Your task to perform on an android device: Search for vegetarian restaurants on Maps Image 0: 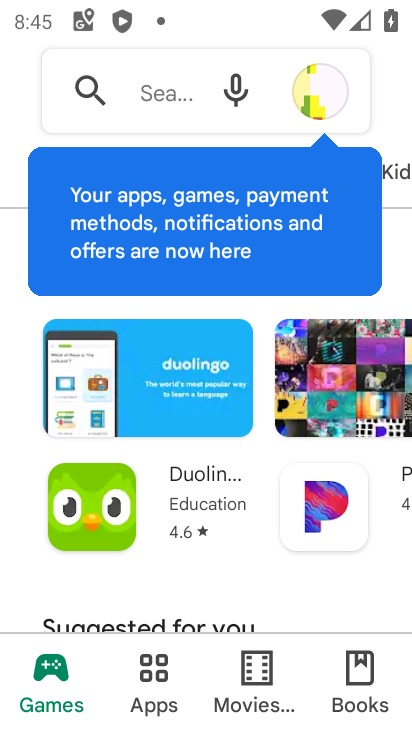
Step 0: press home button
Your task to perform on an android device: Search for vegetarian restaurants on Maps Image 1: 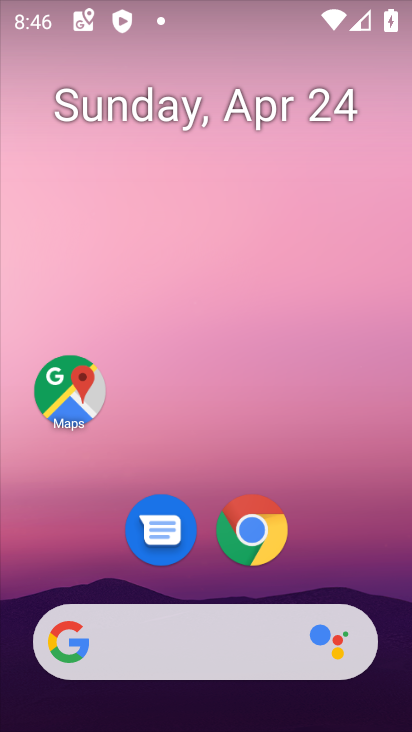
Step 1: click (81, 376)
Your task to perform on an android device: Search for vegetarian restaurants on Maps Image 2: 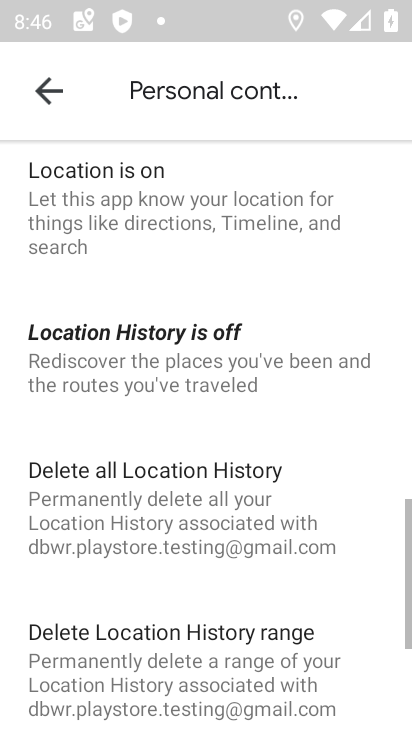
Step 2: click (72, 77)
Your task to perform on an android device: Search for vegetarian restaurants on Maps Image 3: 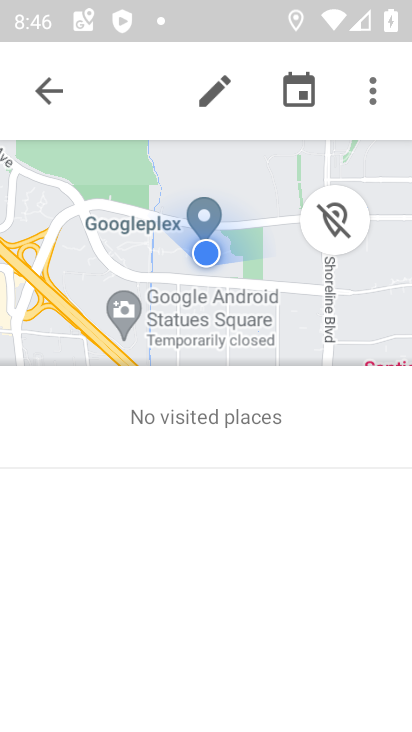
Step 3: click (72, 77)
Your task to perform on an android device: Search for vegetarian restaurants on Maps Image 4: 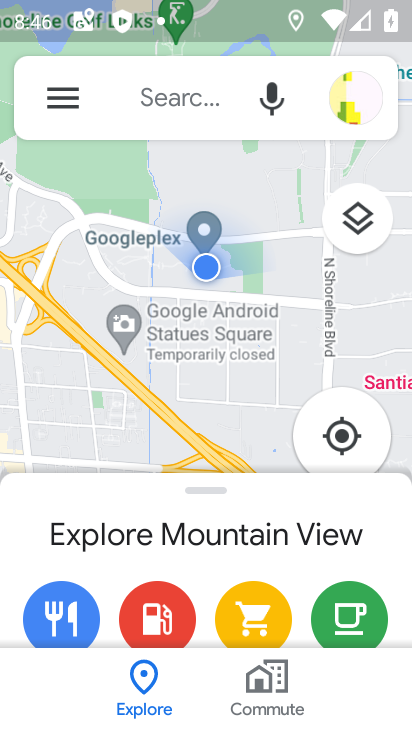
Step 4: click (110, 94)
Your task to perform on an android device: Search for vegetarian restaurants on Maps Image 5: 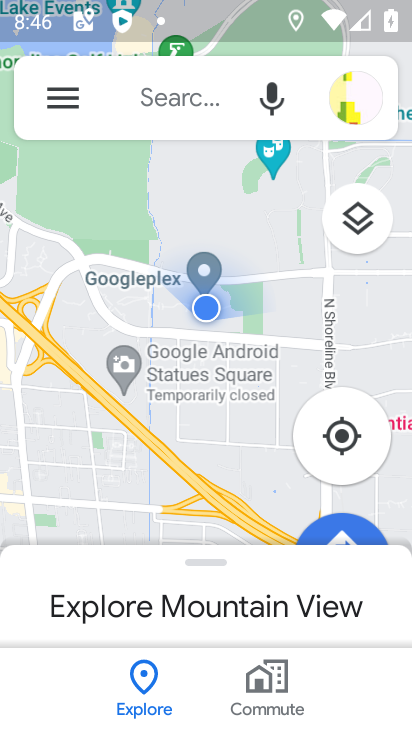
Step 5: click (148, 101)
Your task to perform on an android device: Search for vegetarian restaurants on Maps Image 6: 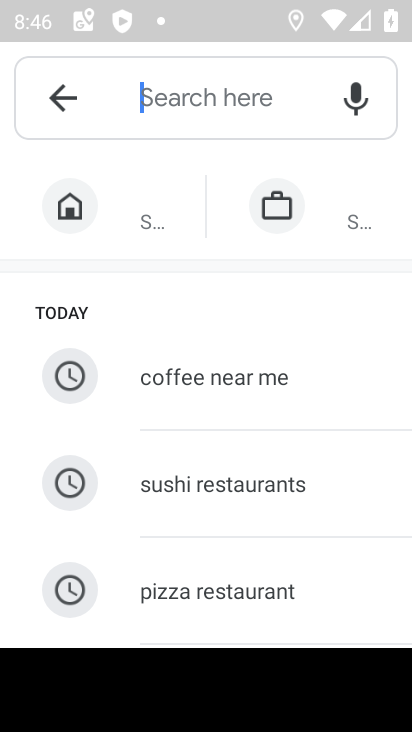
Step 6: drag from (162, 572) to (299, 108)
Your task to perform on an android device: Search for vegetarian restaurants on Maps Image 7: 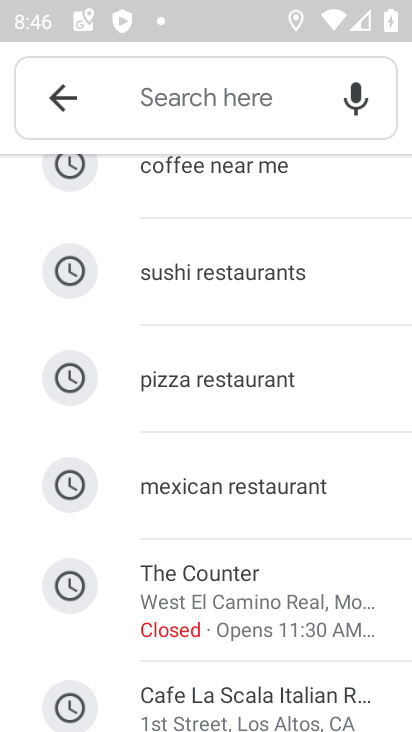
Step 7: type "vegetarian restaurant"
Your task to perform on an android device: Search for vegetarian restaurants on Maps Image 8: 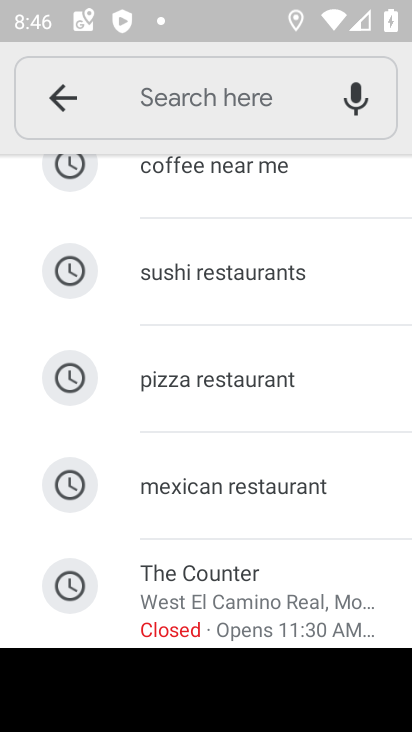
Step 8: click (194, 73)
Your task to perform on an android device: Search for vegetarian restaurants on Maps Image 9: 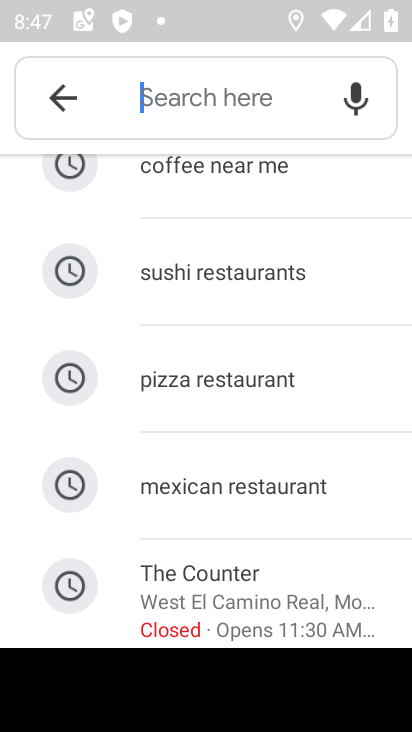
Step 9: type "vegetarian restaurant"
Your task to perform on an android device: Search for vegetarian restaurants on Maps Image 10: 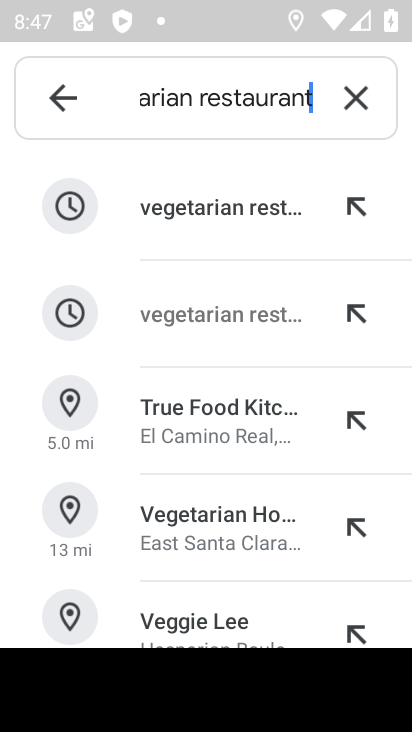
Step 10: click (226, 213)
Your task to perform on an android device: Search for vegetarian restaurants on Maps Image 11: 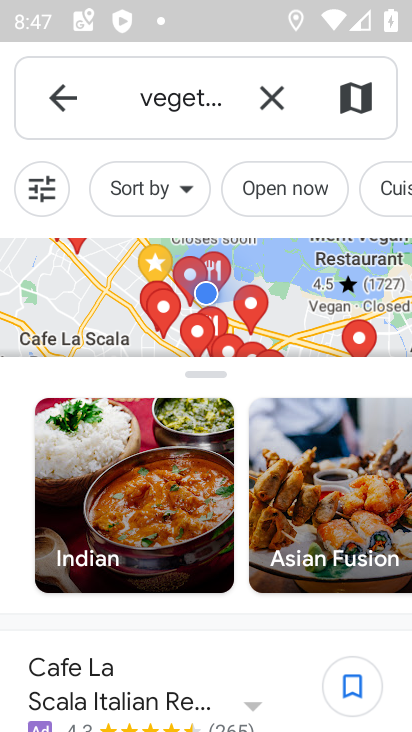
Step 11: task complete